Your task to perform on an android device: find snoozed emails in the gmail app Image 0: 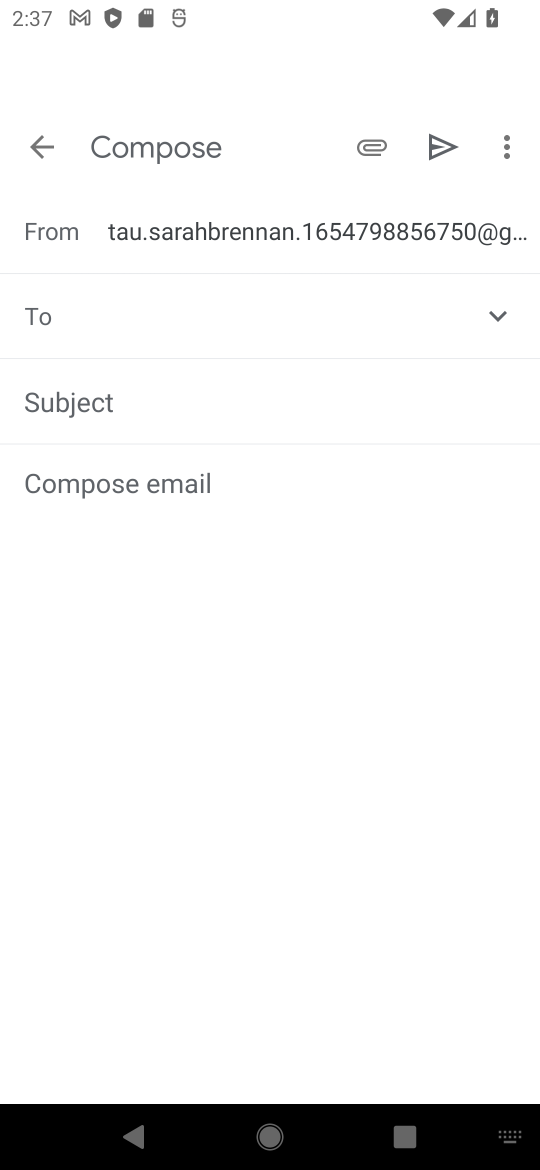
Step 0: press home button
Your task to perform on an android device: find snoozed emails in the gmail app Image 1: 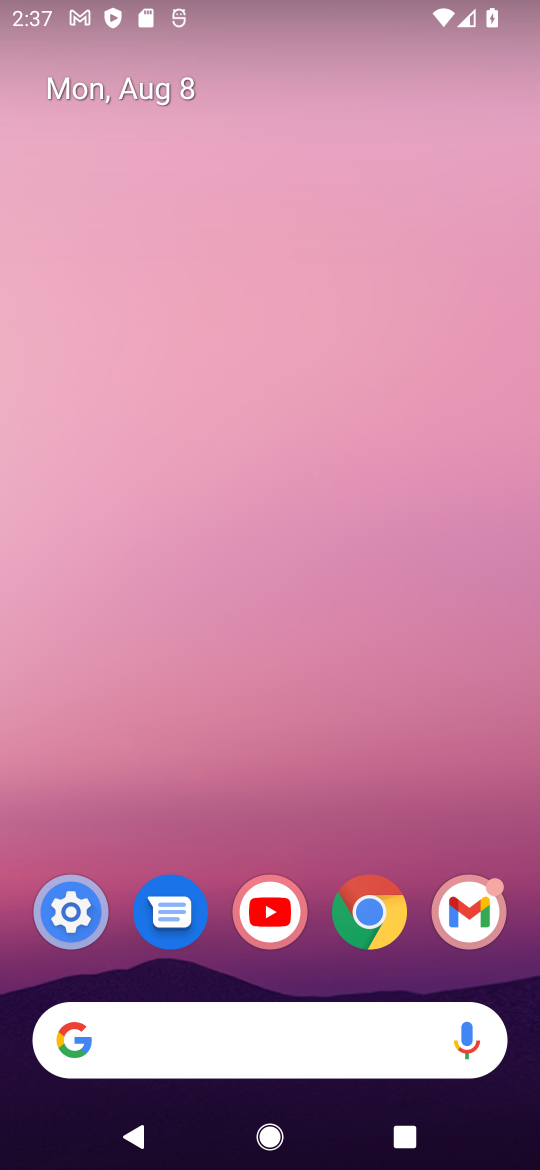
Step 1: drag from (21, 808) to (265, 353)
Your task to perform on an android device: find snoozed emails in the gmail app Image 2: 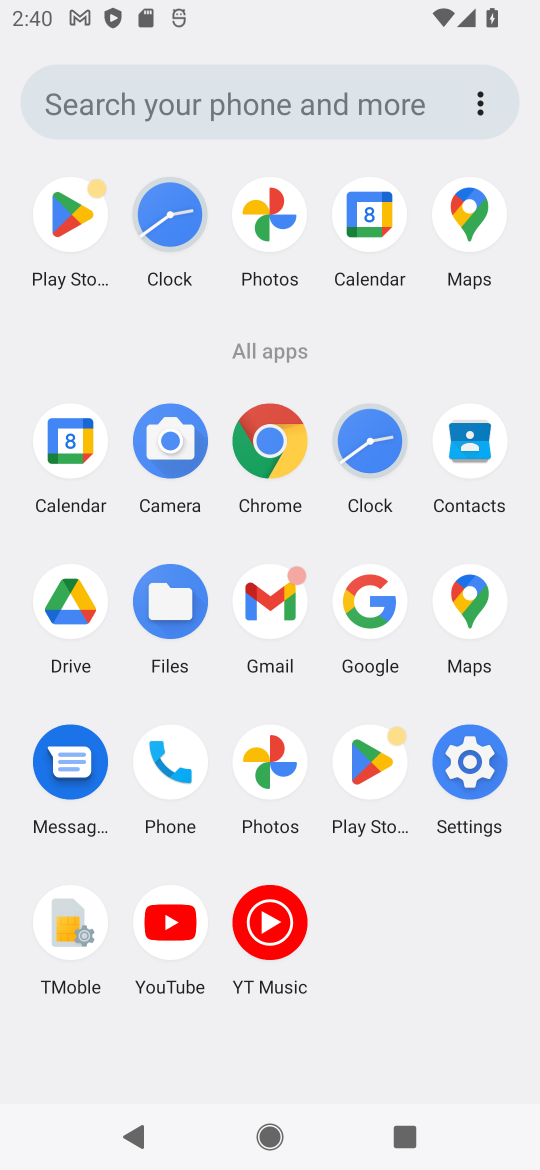
Step 2: click (280, 599)
Your task to perform on an android device: find snoozed emails in the gmail app Image 3: 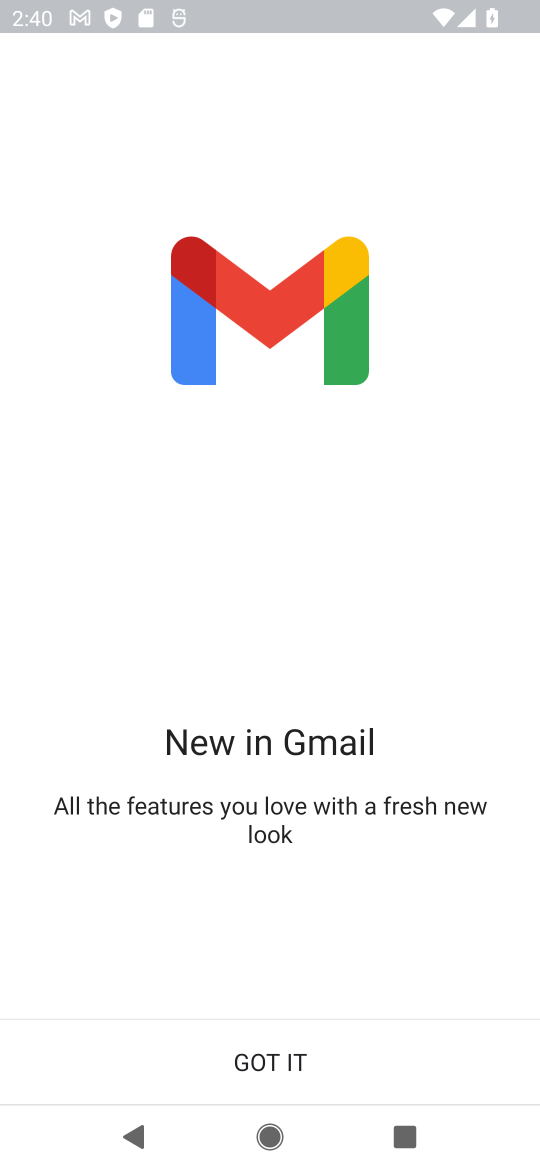
Step 3: click (241, 1065)
Your task to perform on an android device: find snoozed emails in the gmail app Image 4: 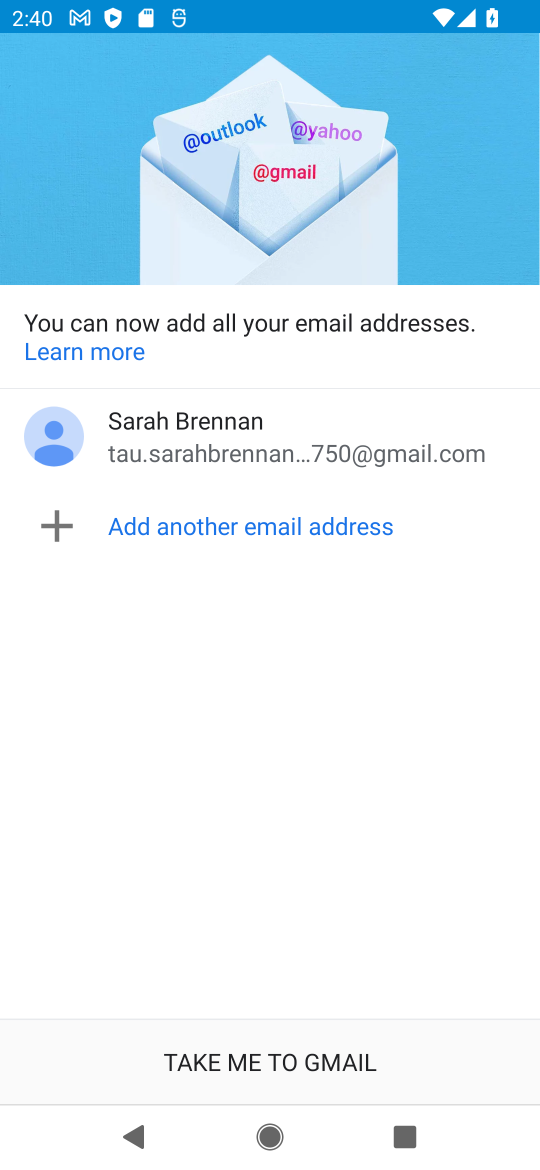
Step 4: click (267, 1035)
Your task to perform on an android device: find snoozed emails in the gmail app Image 5: 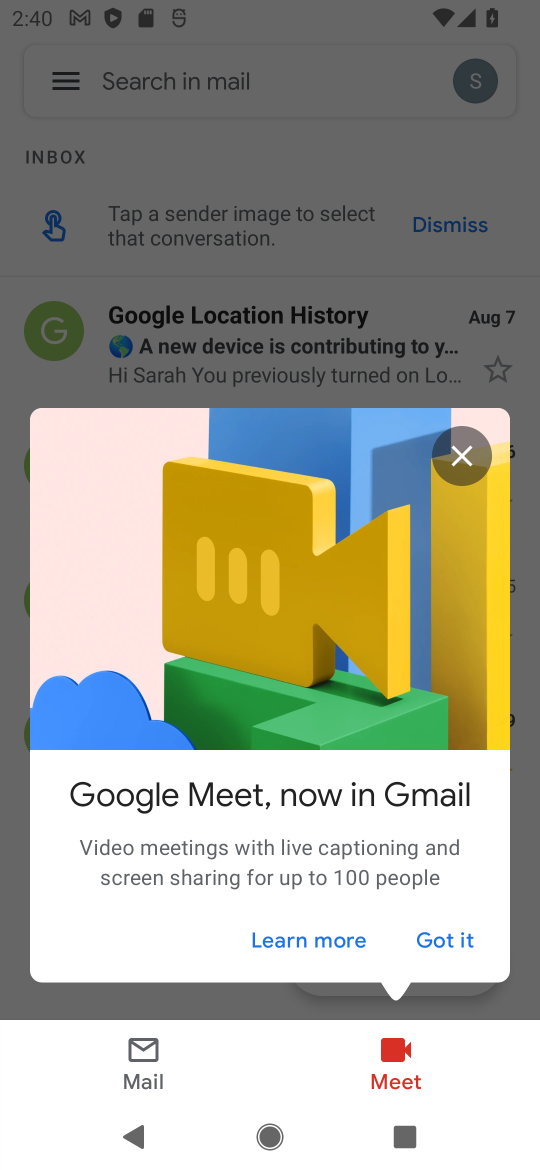
Step 5: click (438, 950)
Your task to perform on an android device: find snoozed emails in the gmail app Image 6: 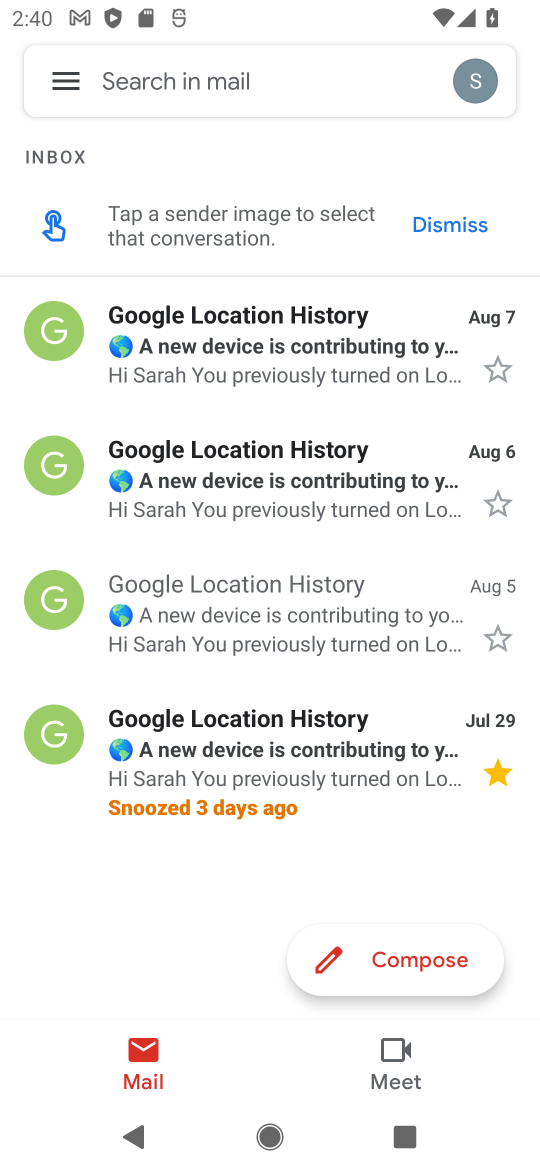
Step 6: click (47, 82)
Your task to perform on an android device: find snoozed emails in the gmail app Image 7: 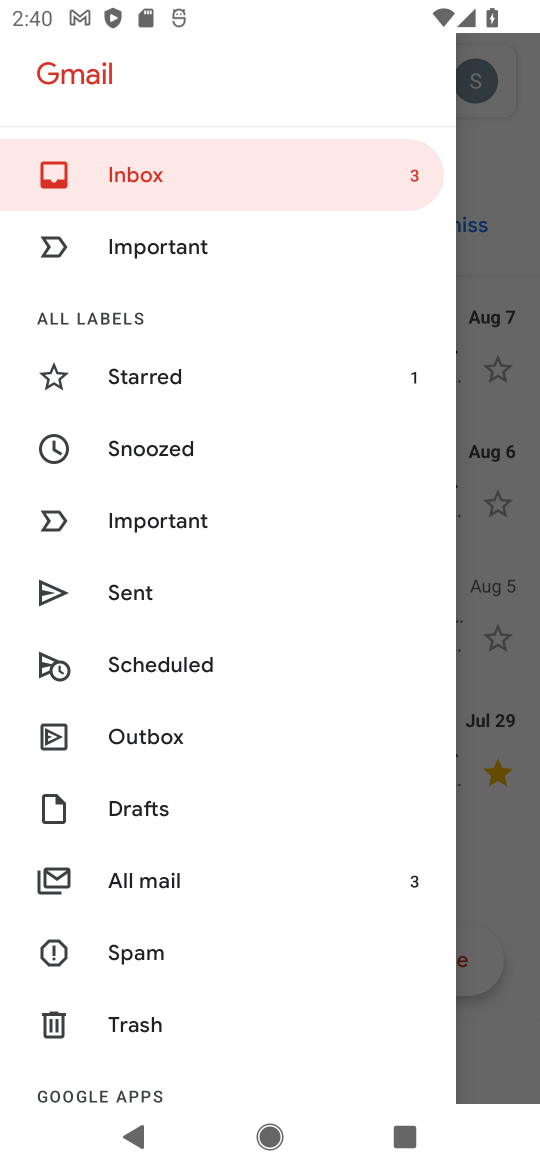
Step 7: click (145, 458)
Your task to perform on an android device: find snoozed emails in the gmail app Image 8: 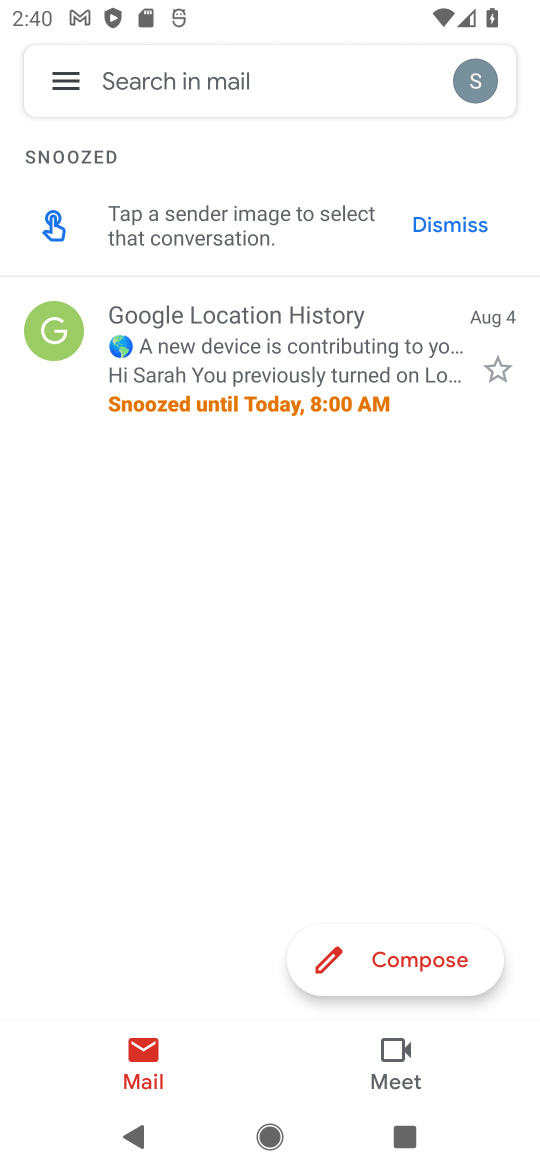
Step 8: task complete